Your task to perform on an android device: allow notifications from all sites in the chrome app Image 0: 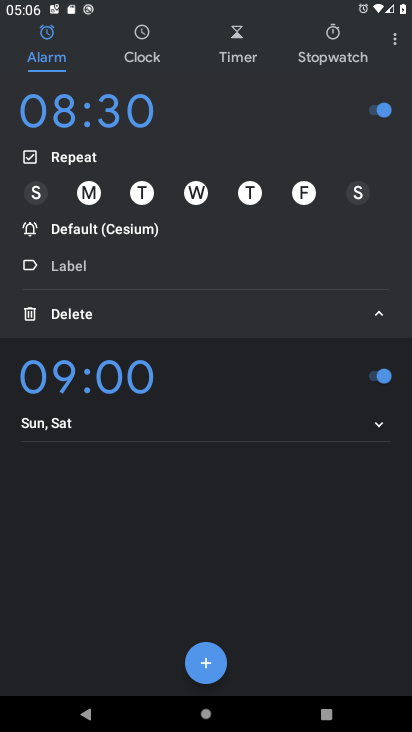
Step 0: press home button
Your task to perform on an android device: allow notifications from all sites in the chrome app Image 1: 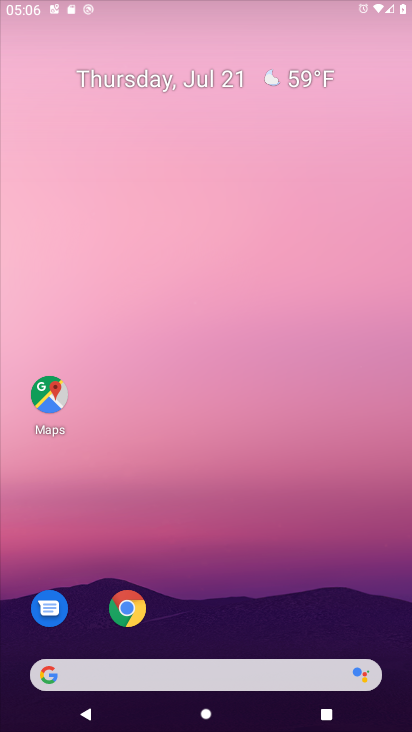
Step 1: drag from (333, 583) to (325, 5)
Your task to perform on an android device: allow notifications from all sites in the chrome app Image 2: 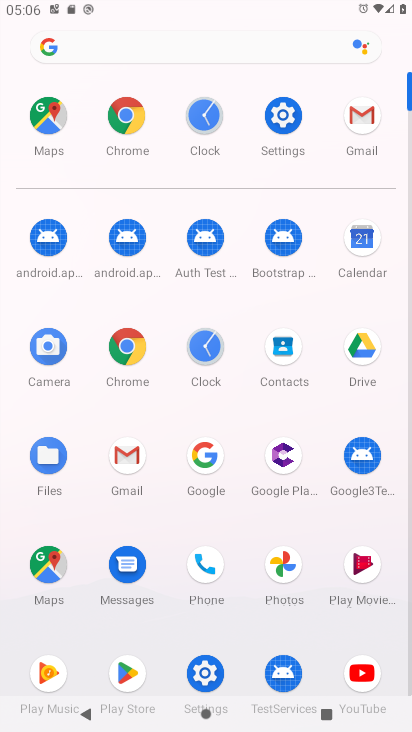
Step 2: click (138, 350)
Your task to perform on an android device: allow notifications from all sites in the chrome app Image 3: 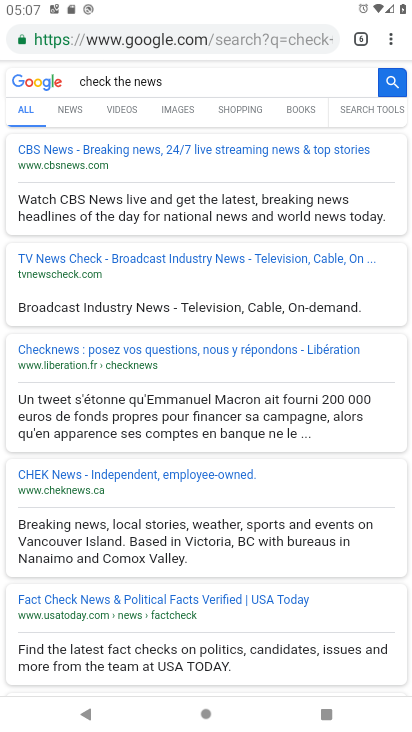
Step 3: drag from (393, 37) to (274, 435)
Your task to perform on an android device: allow notifications from all sites in the chrome app Image 4: 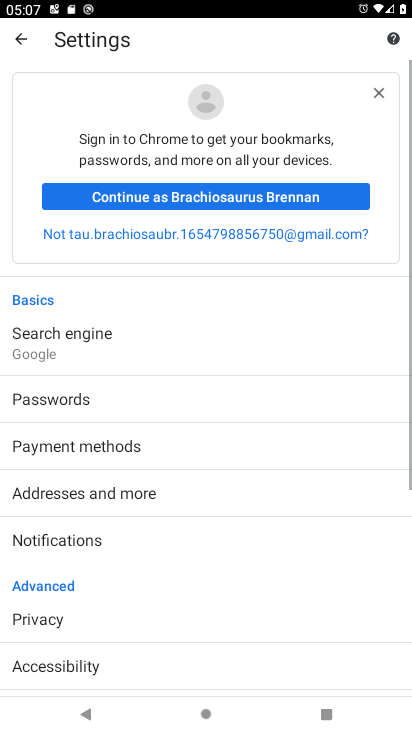
Step 4: click (112, 537)
Your task to perform on an android device: allow notifications from all sites in the chrome app Image 5: 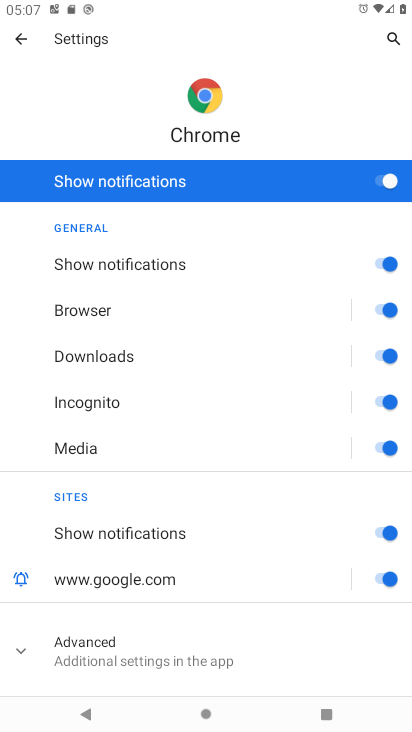
Step 5: task complete